Your task to perform on an android device: Go to Yahoo.com Image 0: 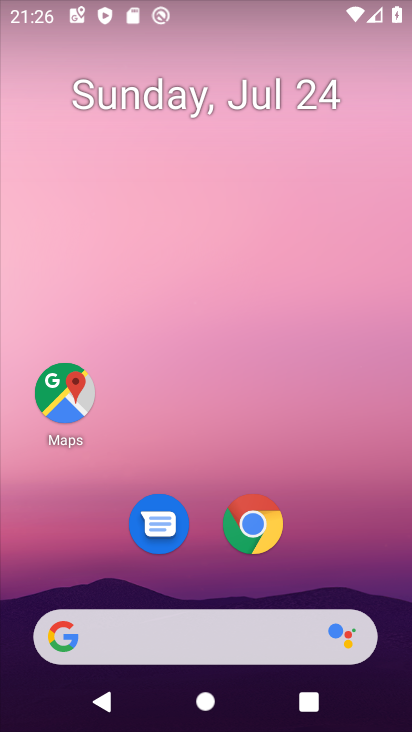
Step 0: click (244, 524)
Your task to perform on an android device: Go to Yahoo.com Image 1: 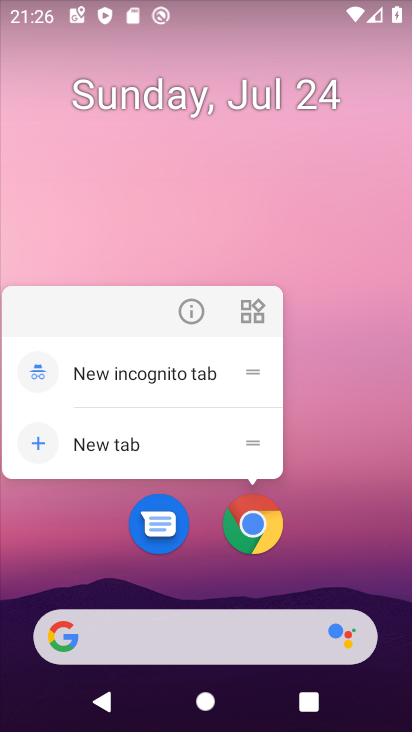
Step 1: click (249, 530)
Your task to perform on an android device: Go to Yahoo.com Image 2: 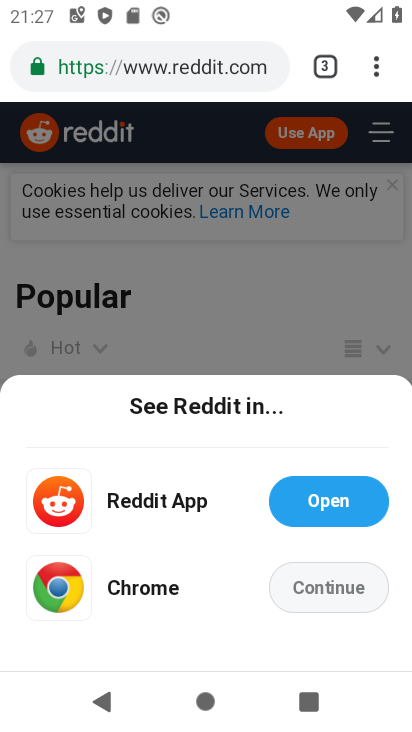
Step 2: drag from (373, 54) to (233, 127)
Your task to perform on an android device: Go to Yahoo.com Image 3: 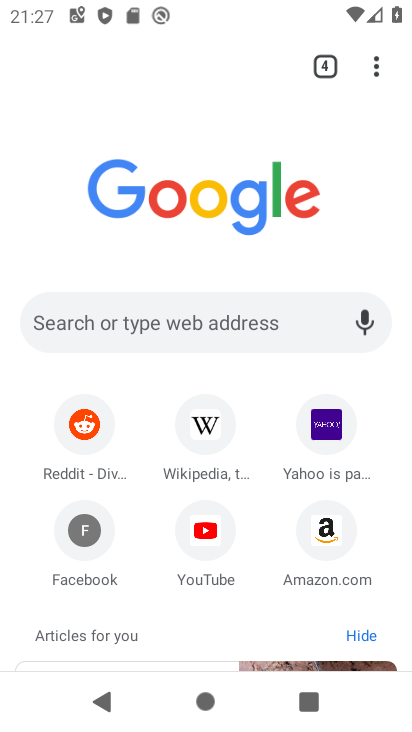
Step 3: click (331, 431)
Your task to perform on an android device: Go to Yahoo.com Image 4: 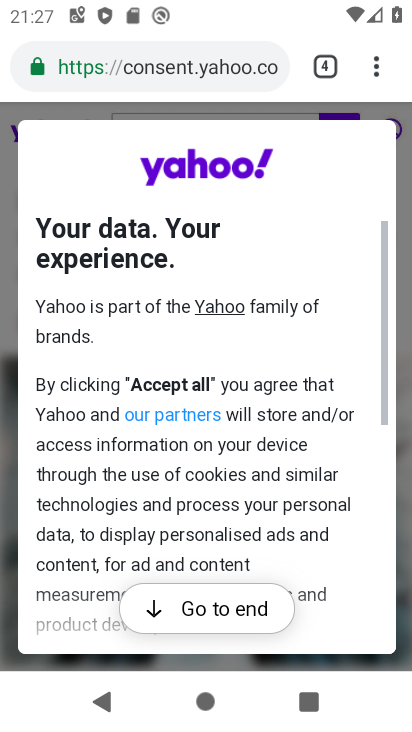
Step 4: drag from (185, 583) to (322, 203)
Your task to perform on an android device: Go to Yahoo.com Image 5: 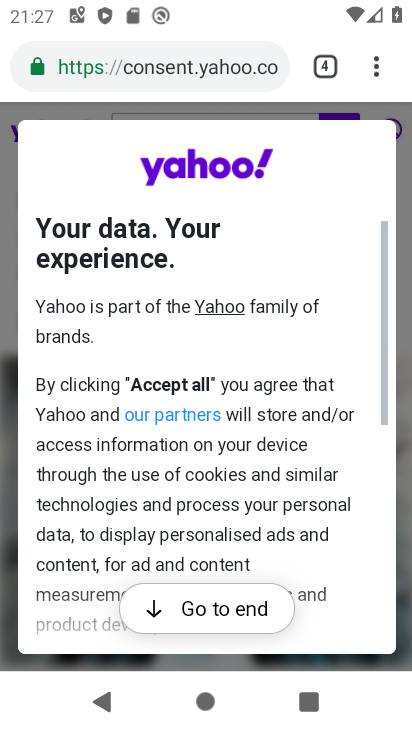
Step 5: click (230, 608)
Your task to perform on an android device: Go to Yahoo.com Image 6: 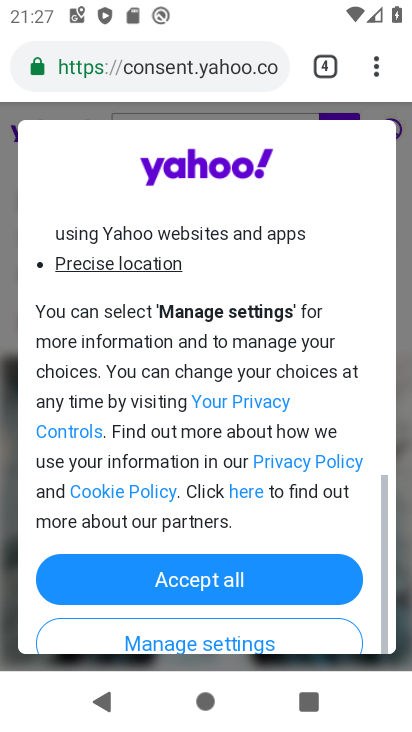
Step 6: click (212, 582)
Your task to perform on an android device: Go to Yahoo.com Image 7: 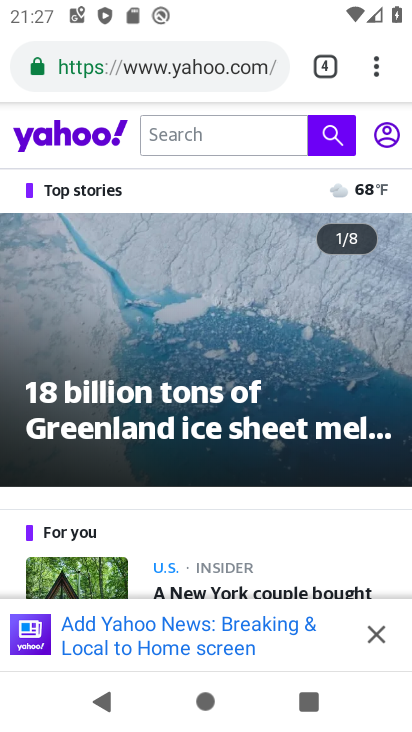
Step 7: task complete